Your task to perform on an android device: Search for seafood restaurants on Google Maps Image 0: 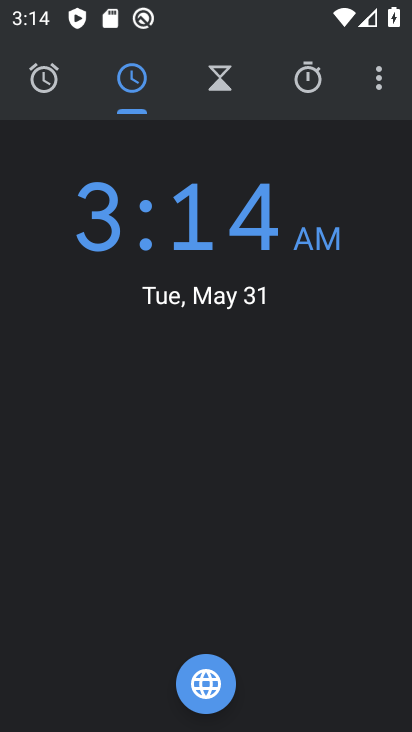
Step 0: press home button
Your task to perform on an android device: Search for seafood restaurants on Google Maps Image 1: 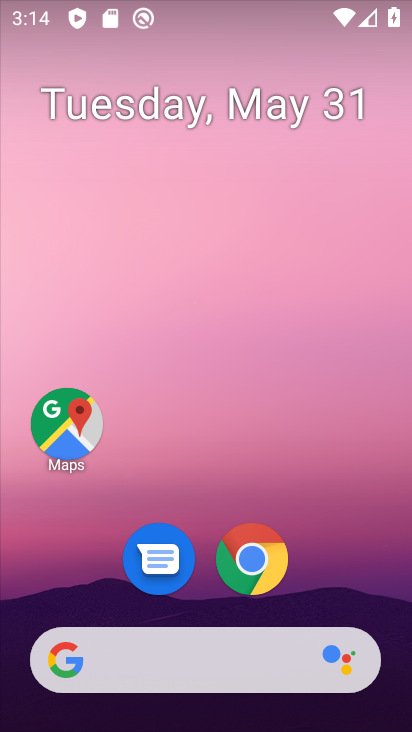
Step 1: drag from (223, 726) to (228, 367)
Your task to perform on an android device: Search for seafood restaurants on Google Maps Image 2: 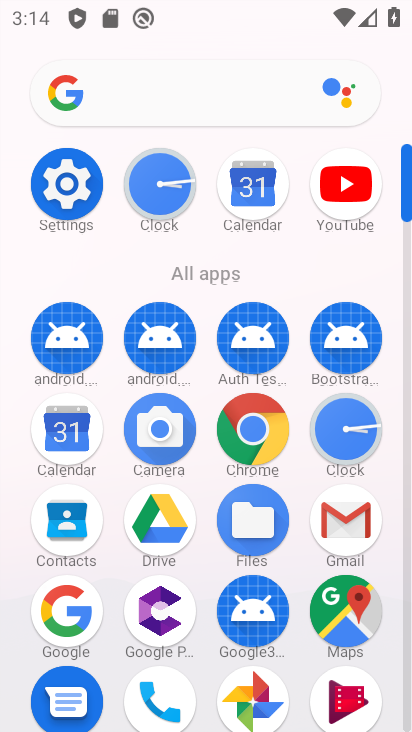
Step 2: click (348, 610)
Your task to perform on an android device: Search for seafood restaurants on Google Maps Image 3: 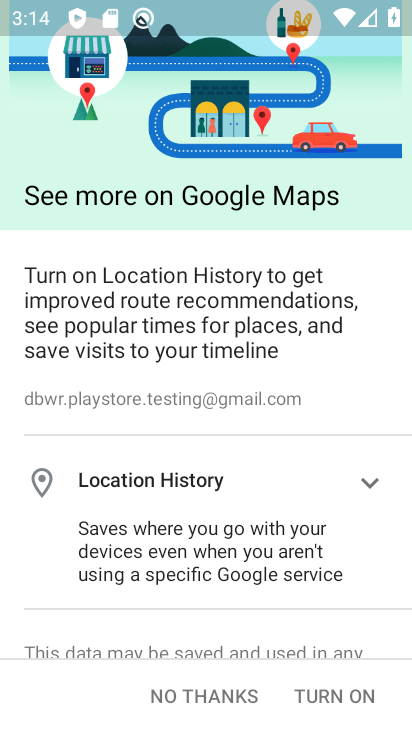
Step 3: click (214, 696)
Your task to perform on an android device: Search for seafood restaurants on Google Maps Image 4: 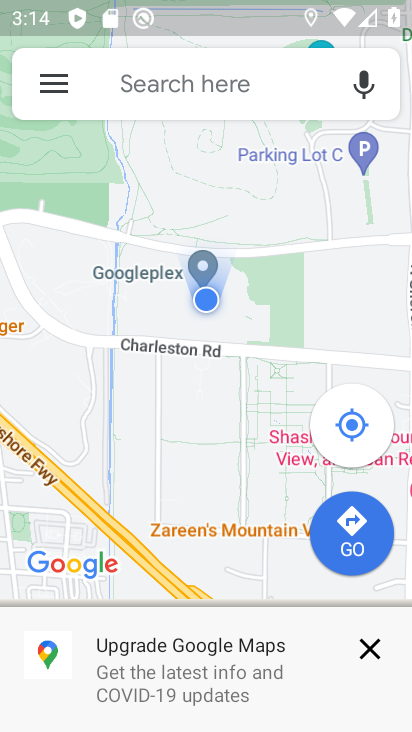
Step 4: click (259, 87)
Your task to perform on an android device: Search for seafood restaurants on Google Maps Image 5: 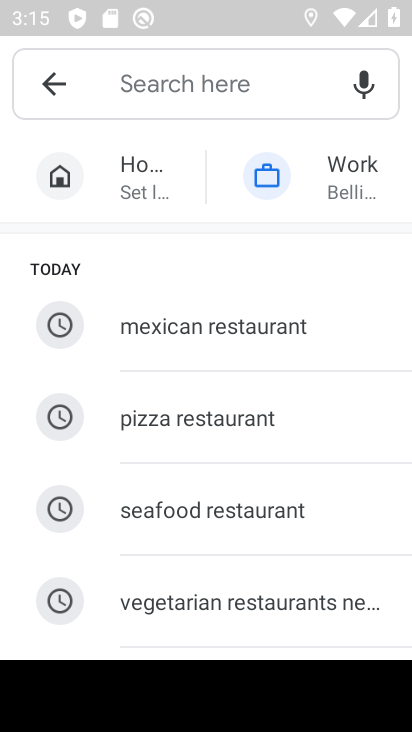
Step 5: type "seafood restaurants"
Your task to perform on an android device: Search for seafood restaurants on Google Maps Image 6: 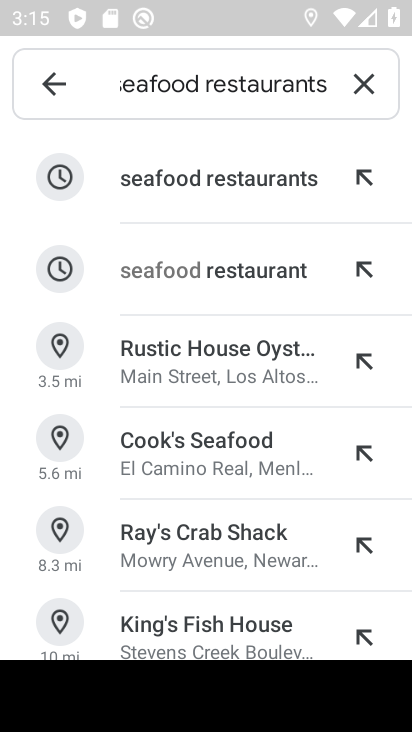
Step 6: click (207, 178)
Your task to perform on an android device: Search for seafood restaurants on Google Maps Image 7: 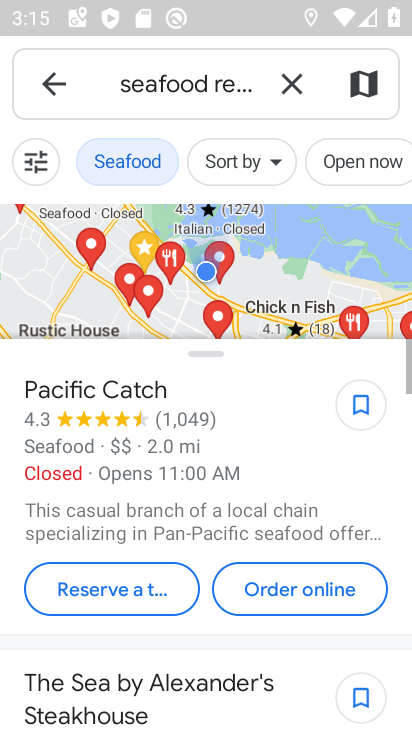
Step 7: task complete